Your task to perform on an android device: open chrome and create a bookmark for the current page Image 0: 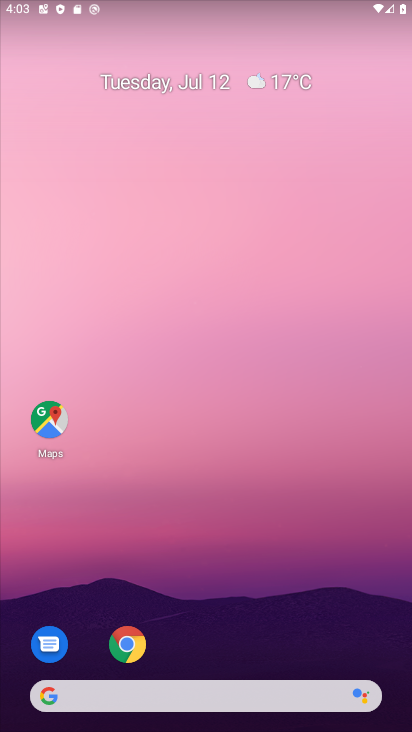
Step 0: drag from (286, 650) to (230, 21)
Your task to perform on an android device: open chrome and create a bookmark for the current page Image 1: 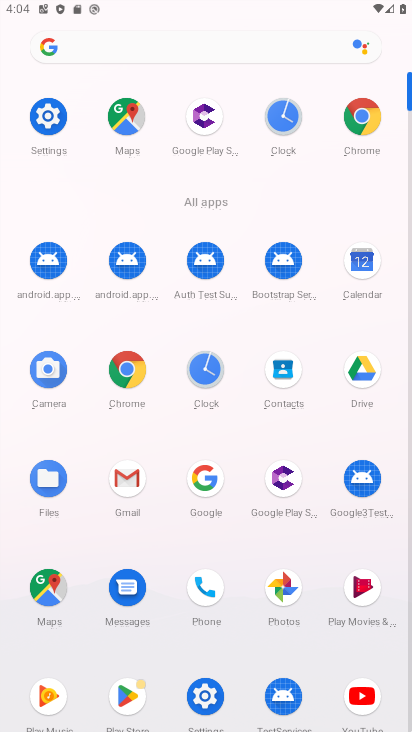
Step 1: click (368, 121)
Your task to perform on an android device: open chrome and create a bookmark for the current page Image 2: 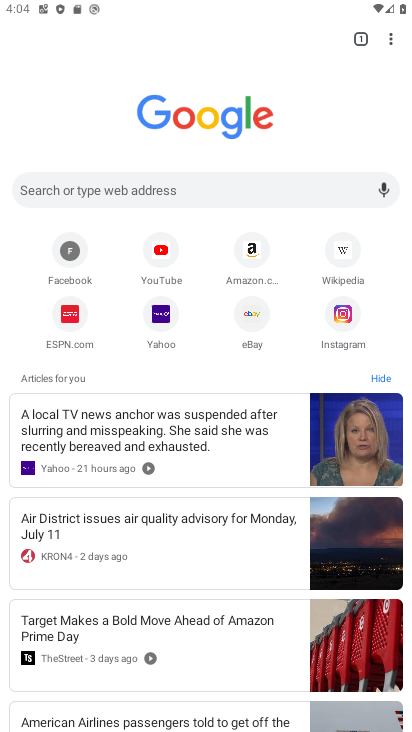
Step 2: click (389, 43)
Your task to perform on an android device: open chrome and create a bookmark for the current page Image 3: 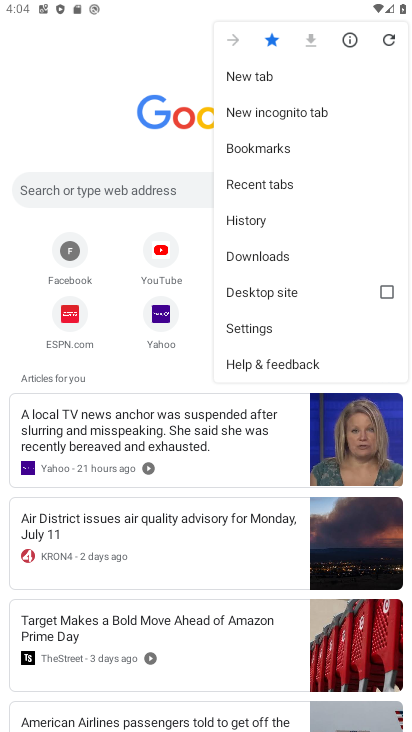
Step 3: task complete